Your task to perform on an android device: Go to CNN.com Image 0: 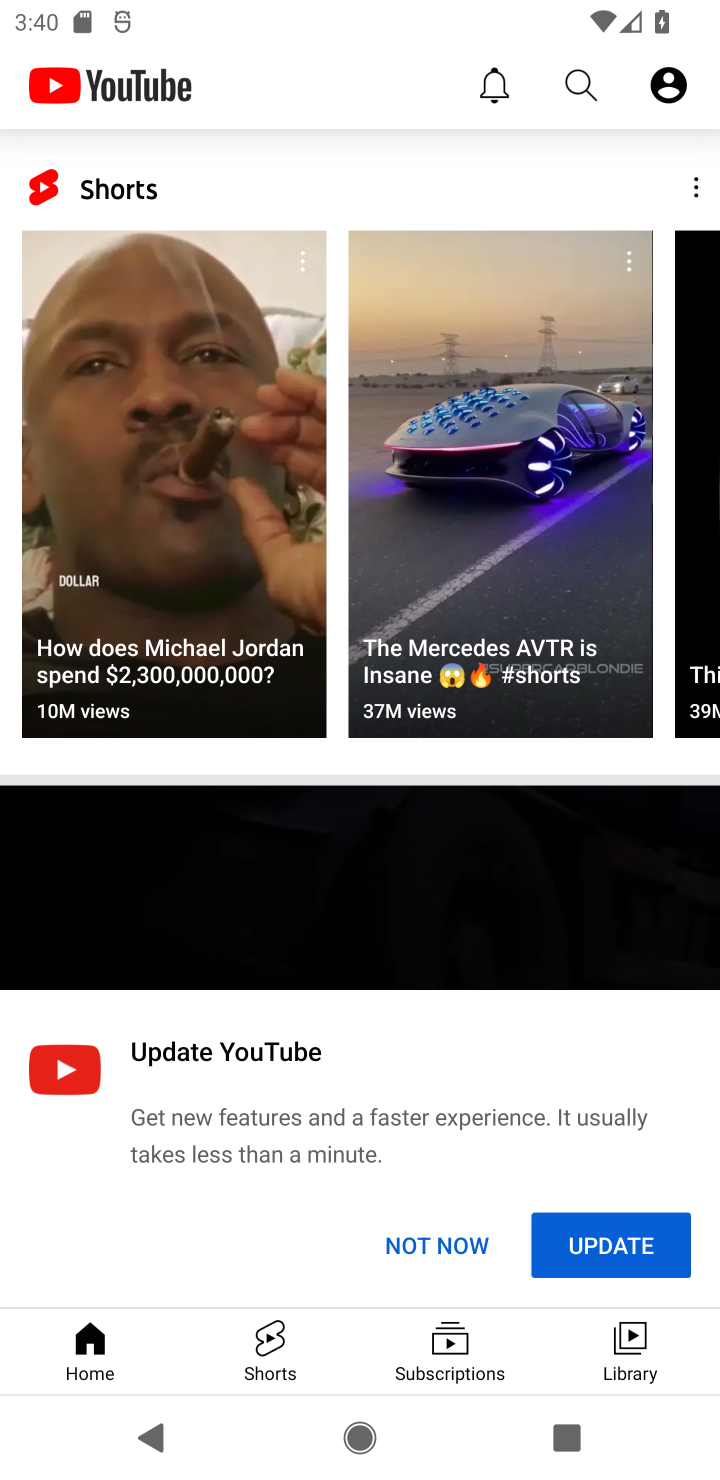
Step 0: press home button
Your task to perform on an android device: Go to CNN.com Image 1: 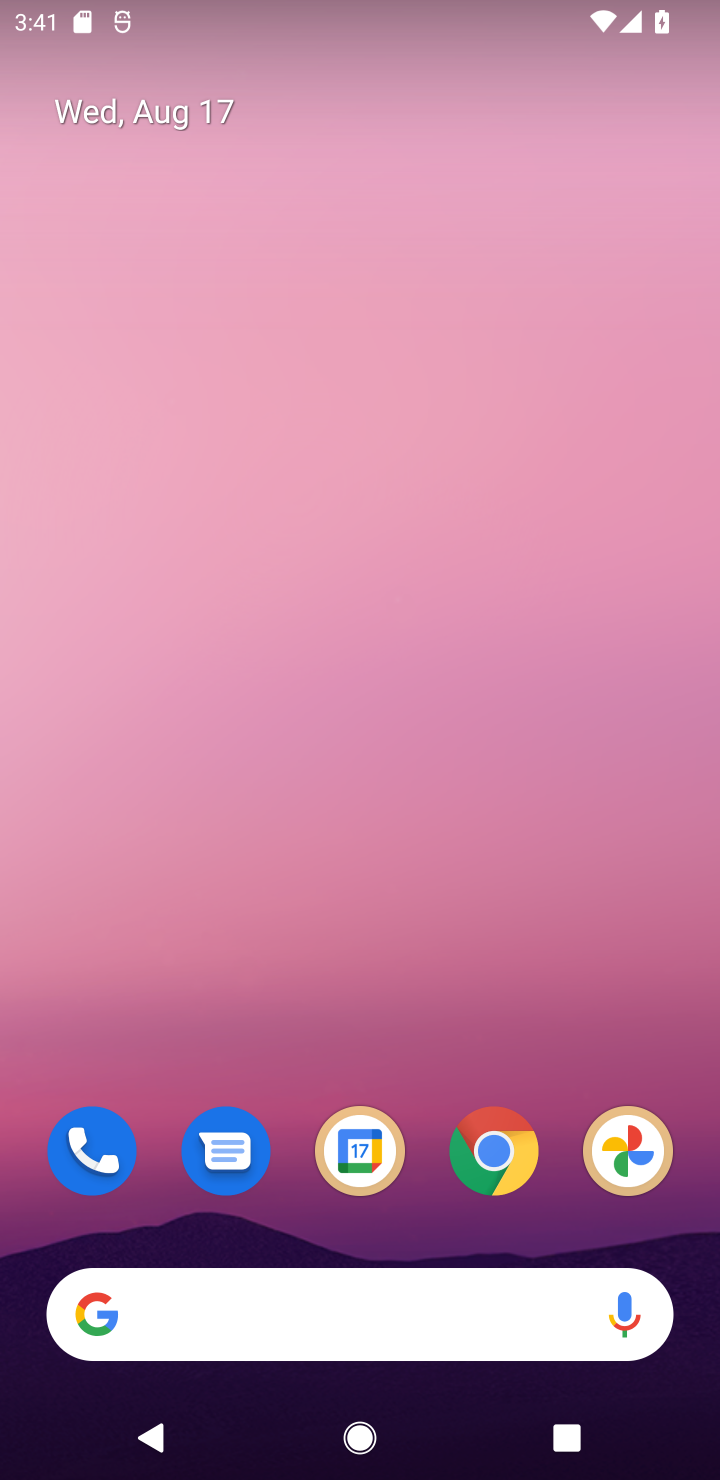
Step 1: click (518, 1135)
Your task to perform on an android device: Go to CNN.com Image 2: 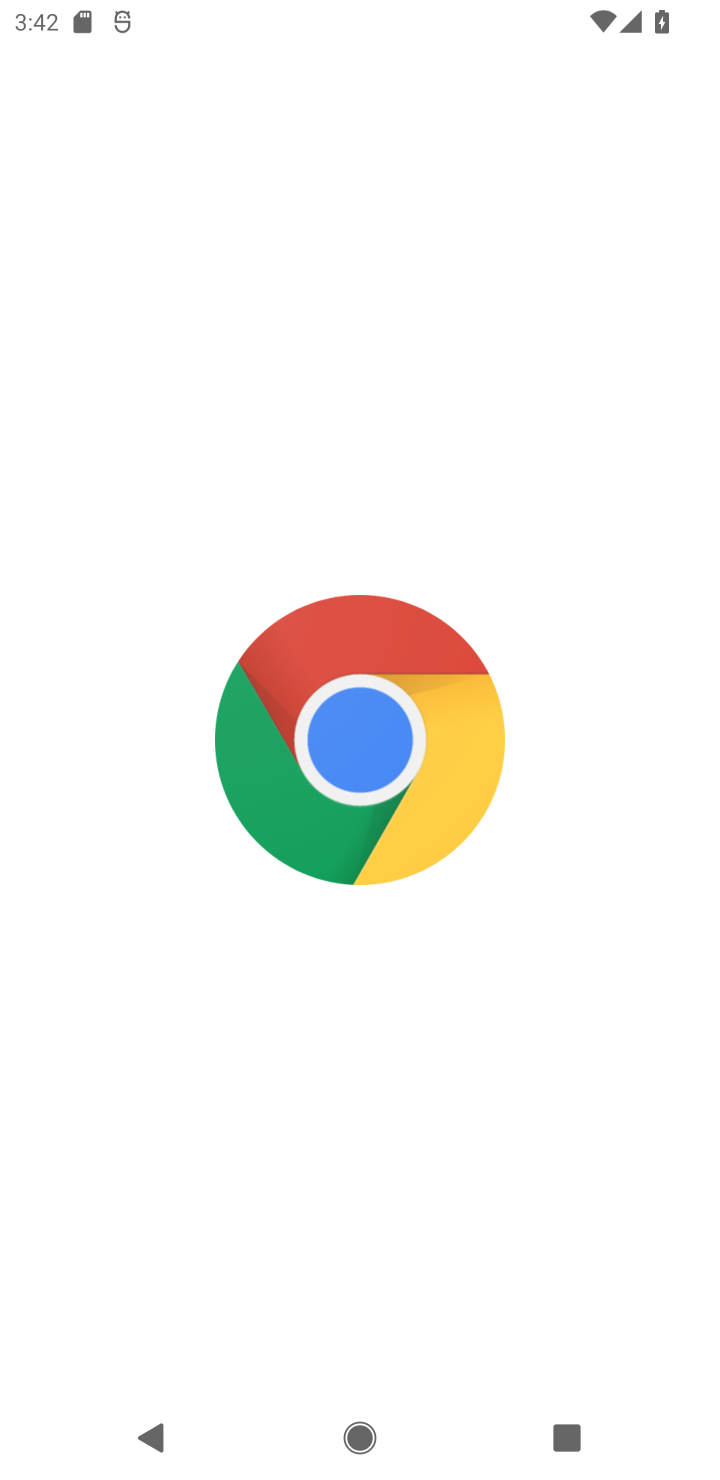
Step 2: task complete